Your task to perform on an android device: turn off notifications in google photos Image 0: 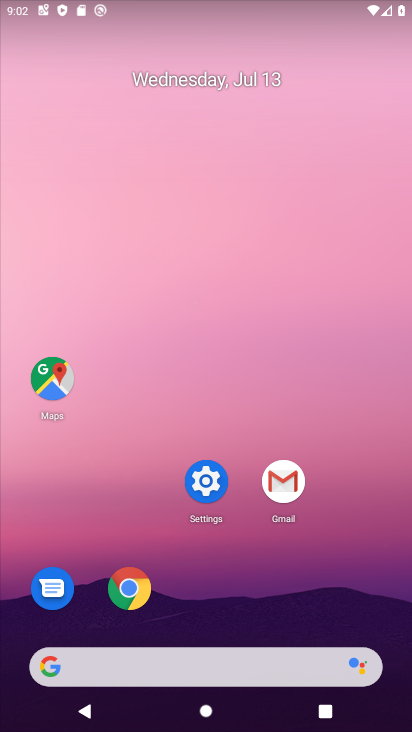
Step 0: drag from (386, 644) to (371, 158)
Your task to perform on an android device: turn off notifications in google photos Image 1: 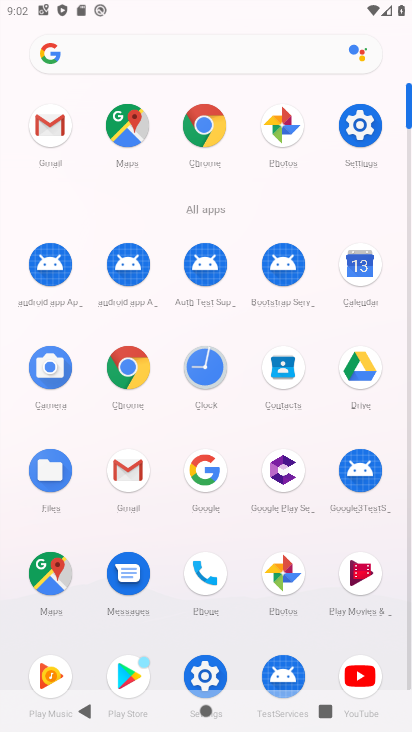
Step 1: click (267, 603)
Your task to perform on an android device: turn off notifications in google photos Image 2: 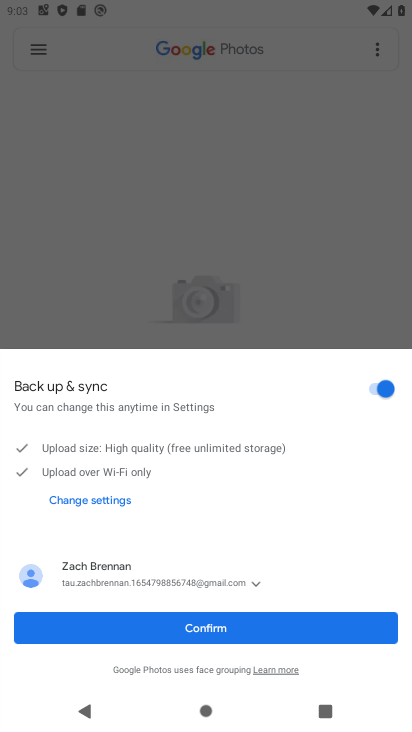
Step 2: click (235, 626)
Your task to perform on an android device: turn off notifications in google photos Image 3: 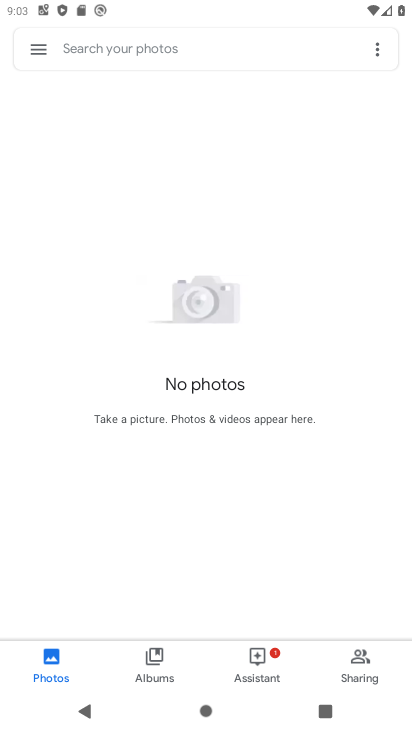
Step 3: click (33, 46)
Your task to perform on an android device: turn off notifications in google photos Image 4: 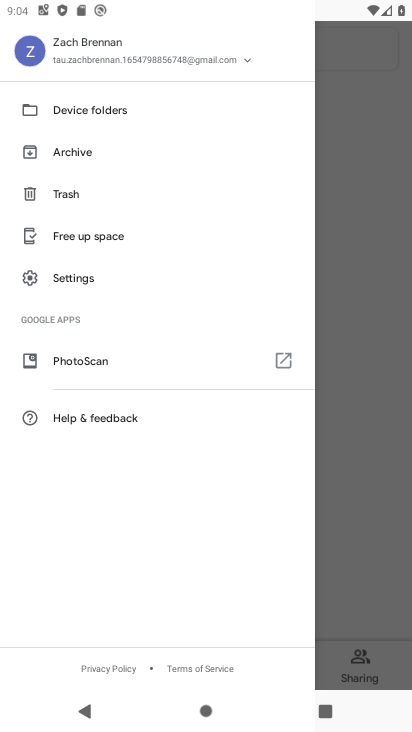
Step 4: click (51, 269)
Your task to perform on an android device: turn off notifications in google photos Image 5: 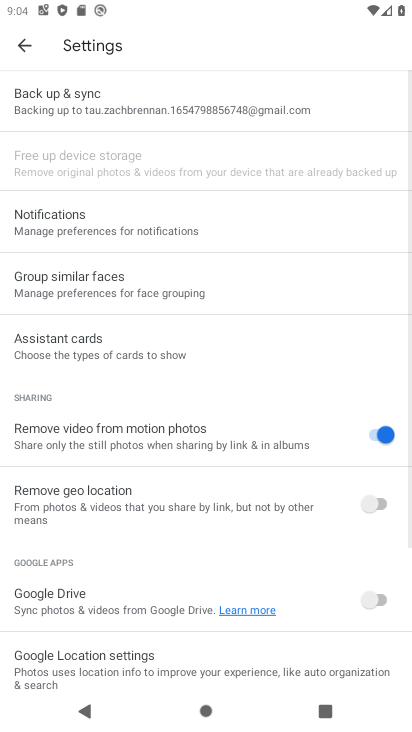
Step 5: click (75, 210)
Your task to perform on an android device: turn off notifications in google photos Image 6: 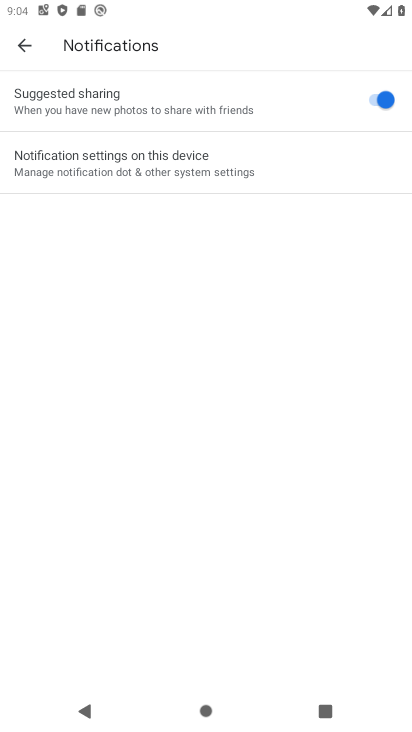
Step 6: click (378, 99)
Your task to perform on an android device: turn off notifications in google photos Image 7: 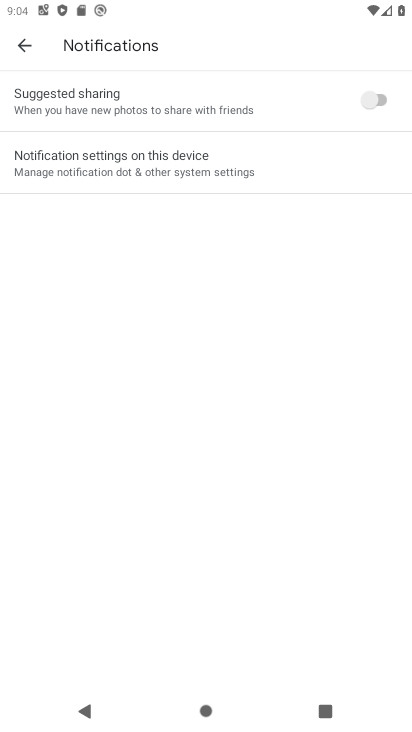
Step 7: task complete